Your task to perform on an android device: What's the weather going to be this weekend? Image 0: 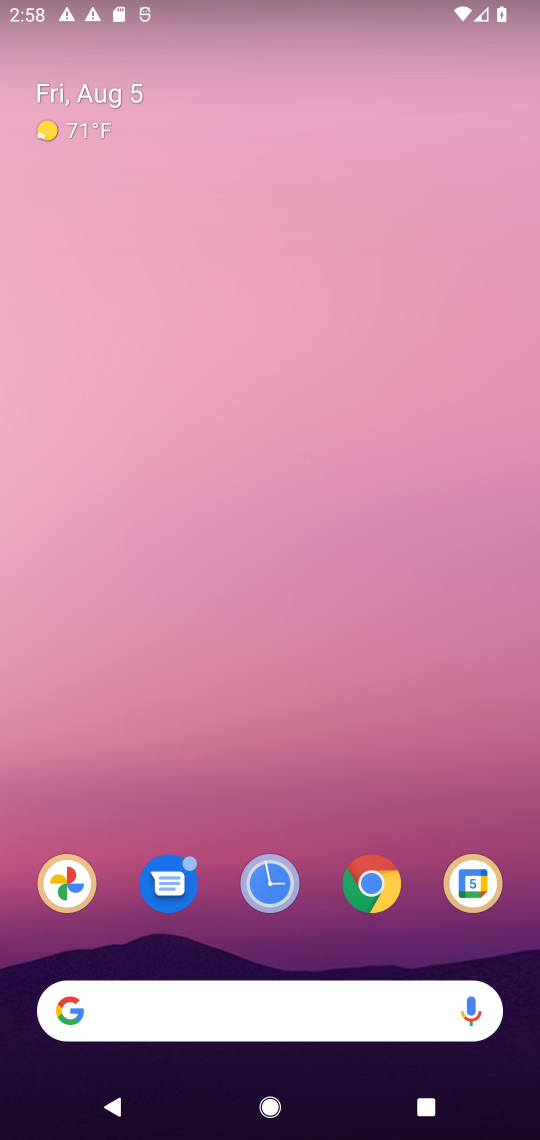
Step 0: drag from (315, 845) to (317, 8)
Your task to perform on an android device: What's the weather going to be this weekend? Image 1: 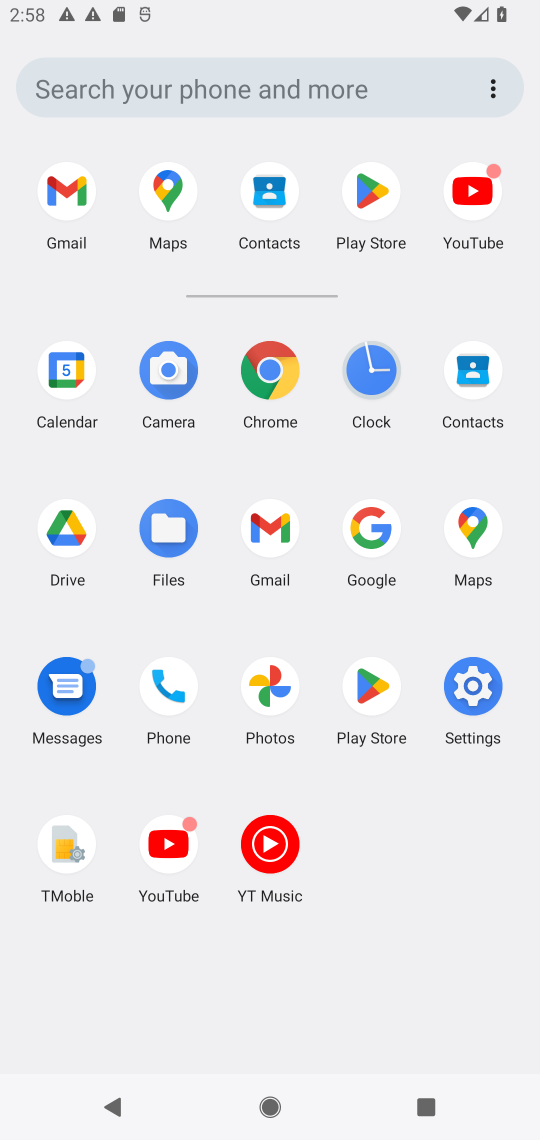
Step 1: press home button
Your task to perform on an android device: What's the weather going to be this weekend? Image 2: 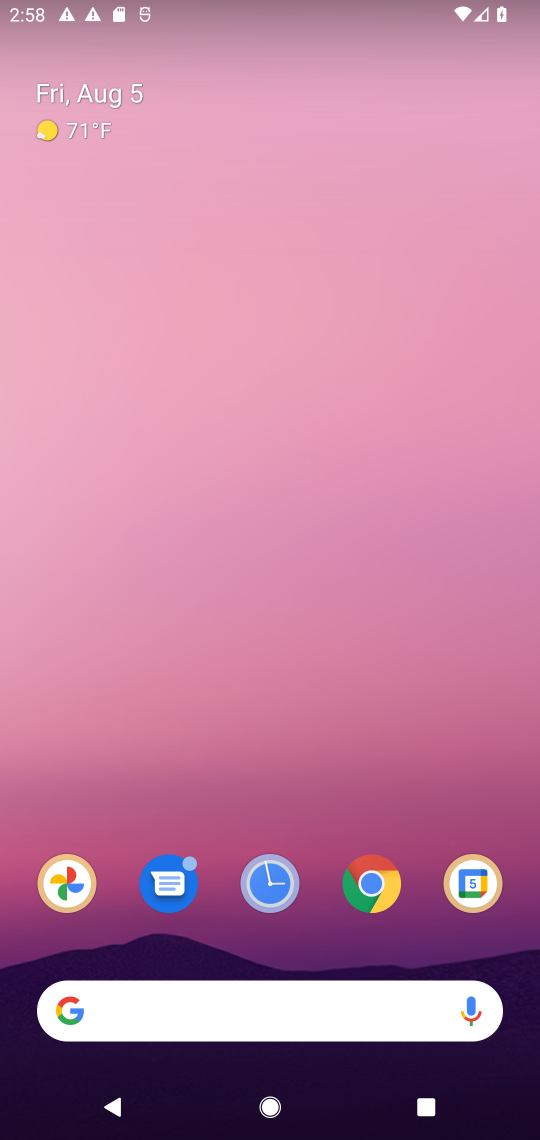
Step 2: click (81, 129)
Your task to perform on an android device: What's the weather going to be this weekend? Image 3: 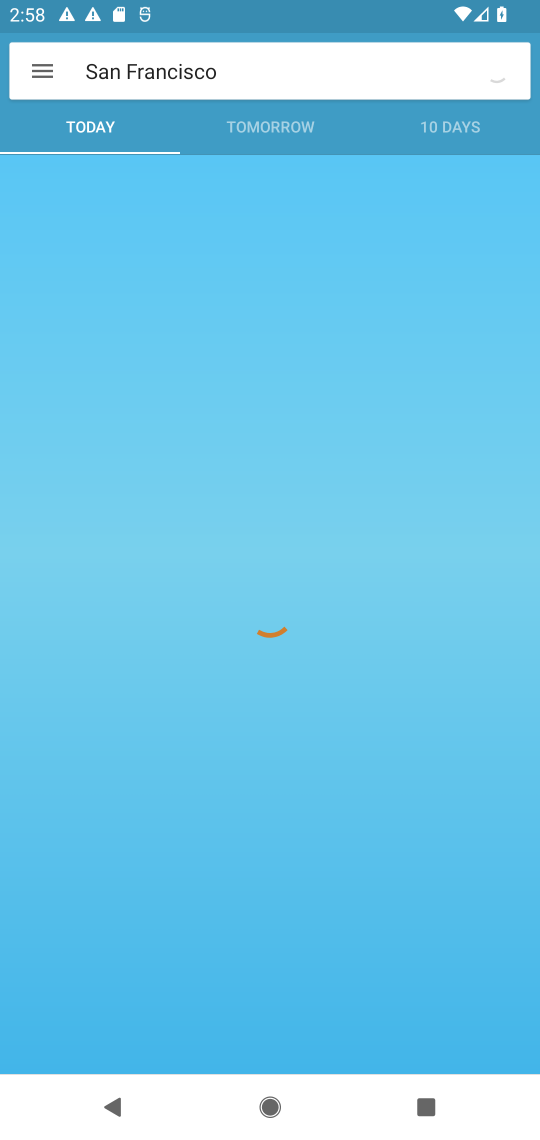
Step 3: click (444, 125)
Your task to perform on an android device: What's the weather going to be this weekend? Image 4: 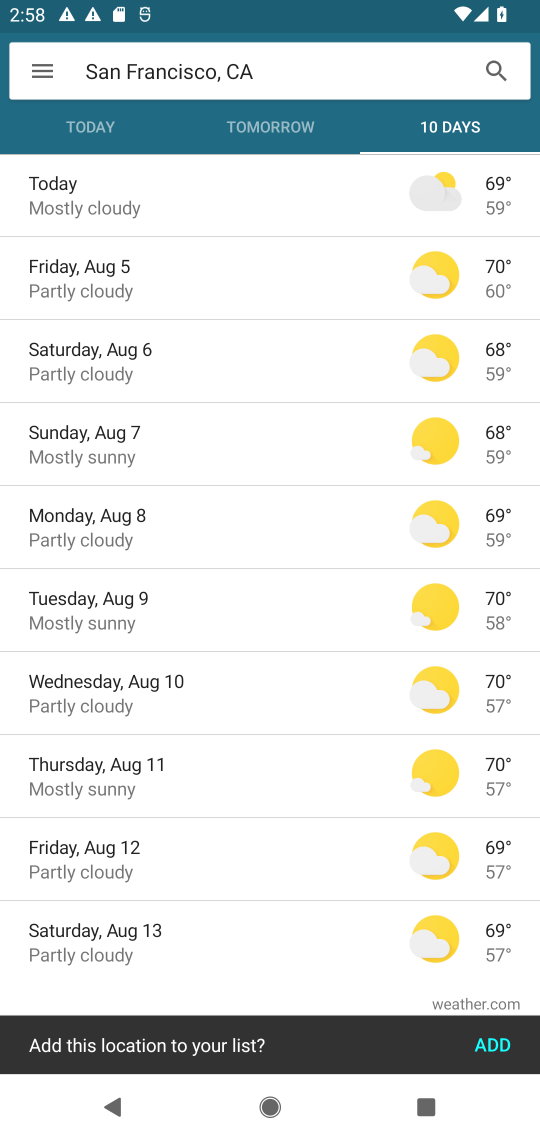
Step 4: click (160, 361)
Your task to perform on an android device: What's the weather going to be this weekend? Image 5: 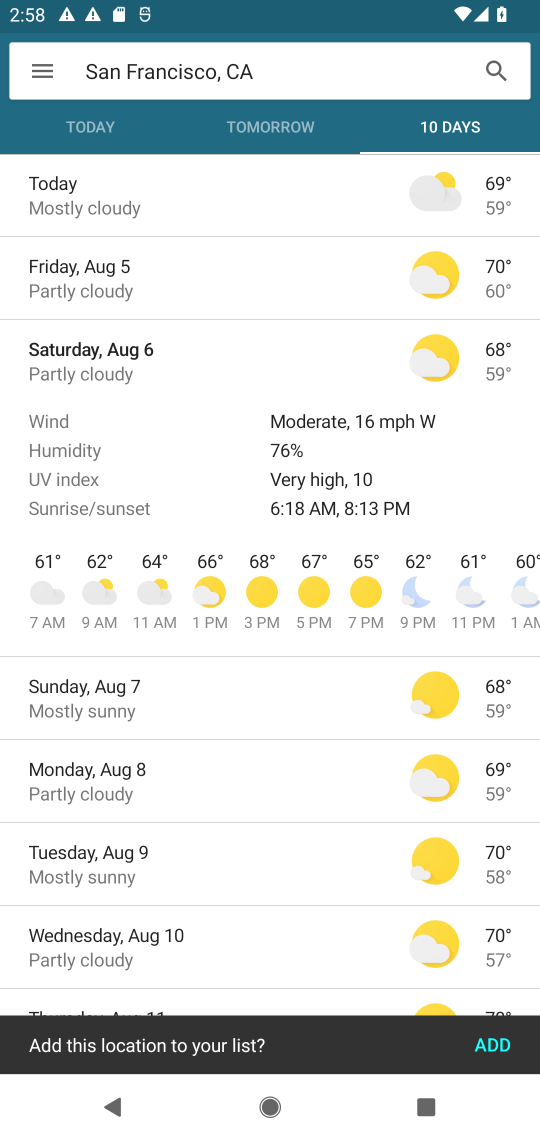
Step 5: click (156, 707)
Your task to perform on an android device: What's the weather going to be this weekend? Image 6: 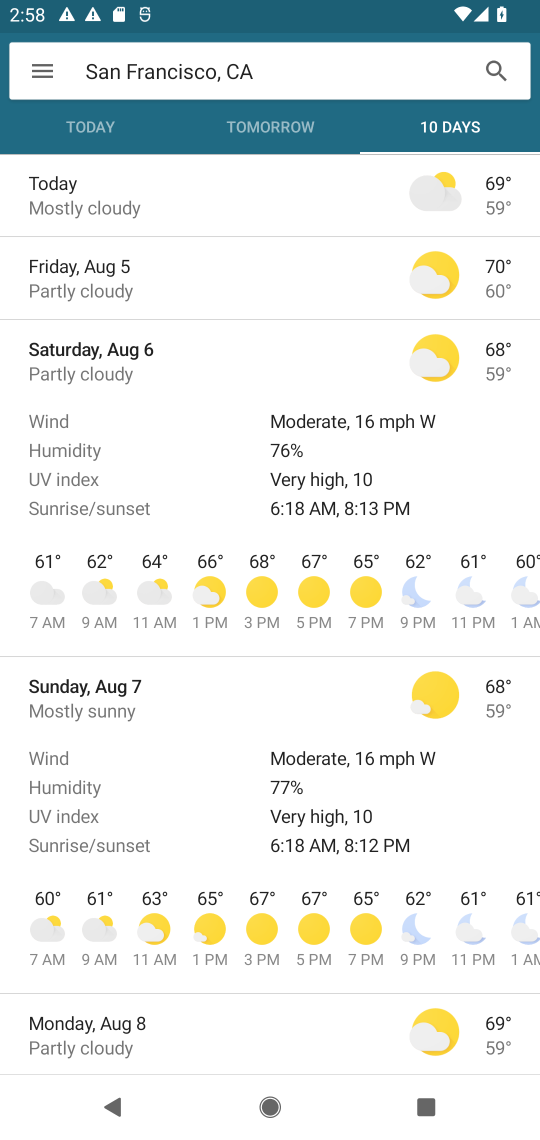
Step 6: task complete